Your task to perform on an android device: change alarm snooze length Image 0: 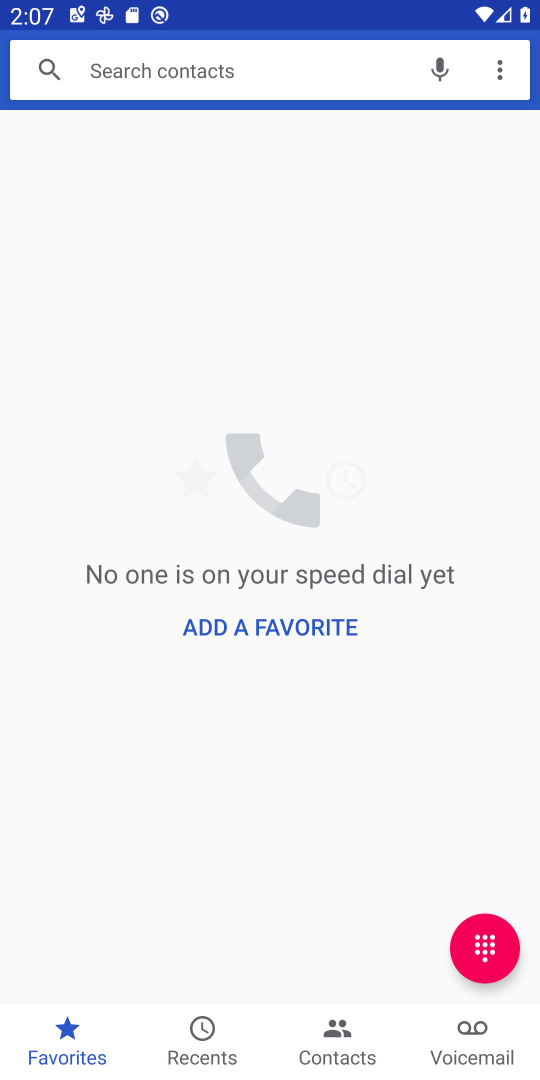
Step 0: press home button
Your task to perform on an android device: change alarm snooze length Image 1: 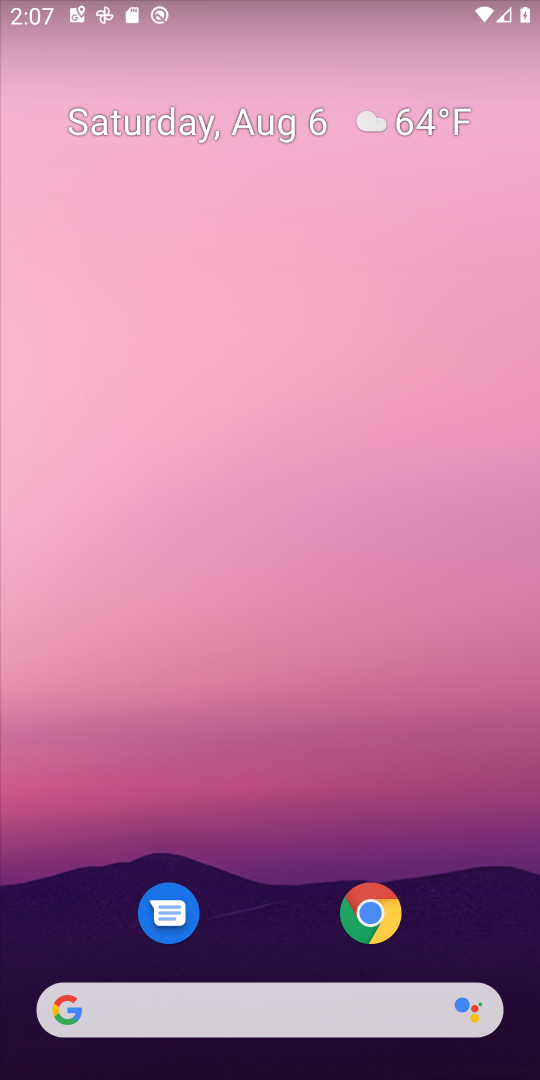
Step 1: drag from (455, 914) to (472, 416)
Your task to perform on an android device: change alarm snooze length Image 2: 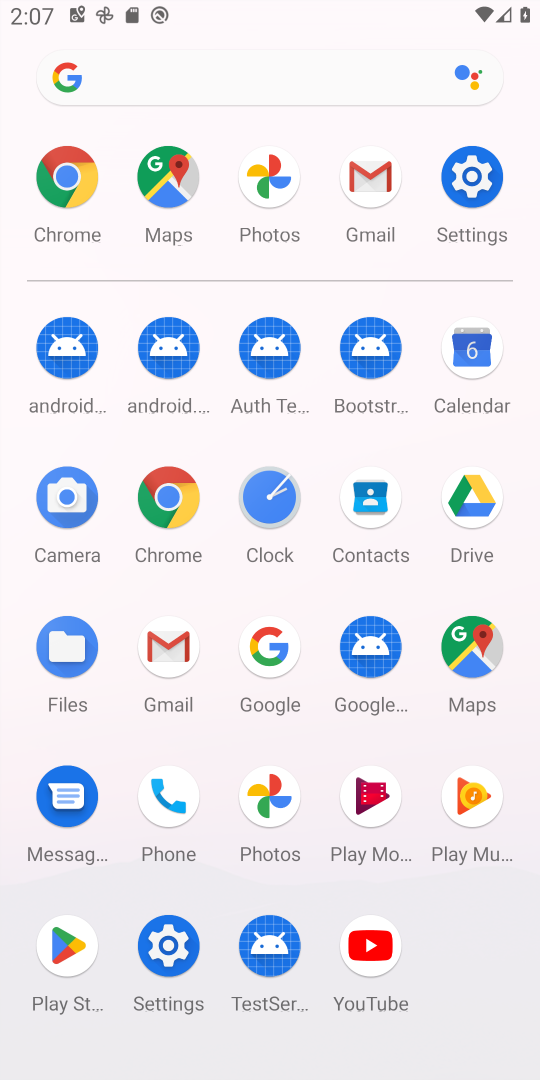
Step 2: click (267, 491)
Your task to perform on an android device: change alarm snooze length Image 3: 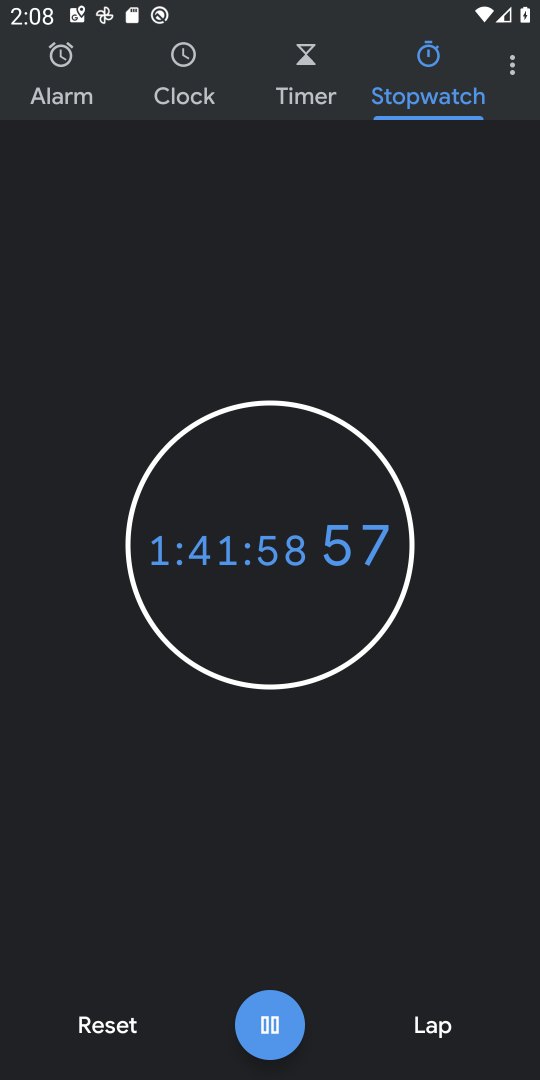
Step 3: click (516, 71)
Your task to perform on an android device: change alarm snooze length Image 4: 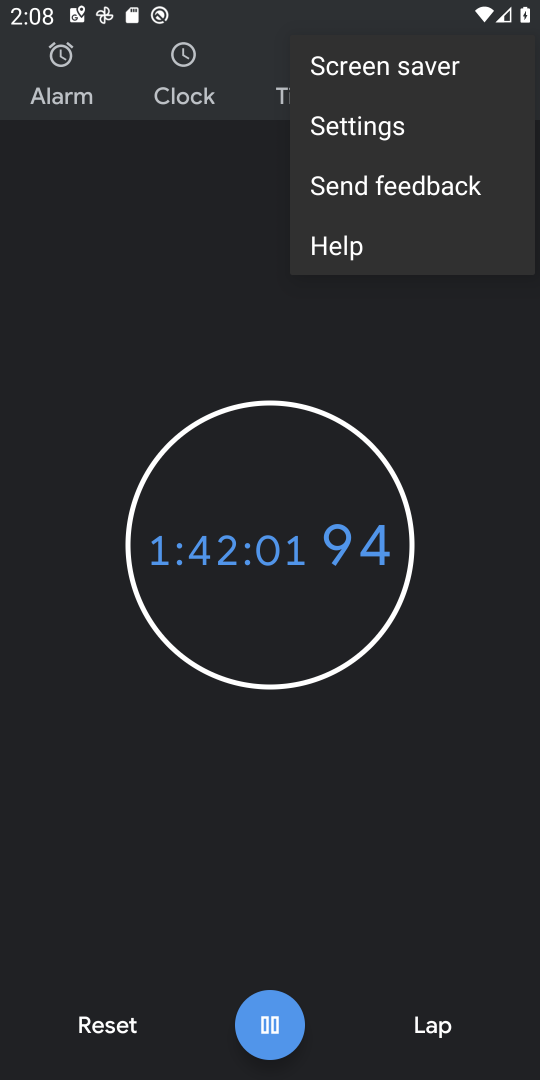
Step 4: click (412, 136)
Your task to perform on an android device: change alarm snooze length Image 5: 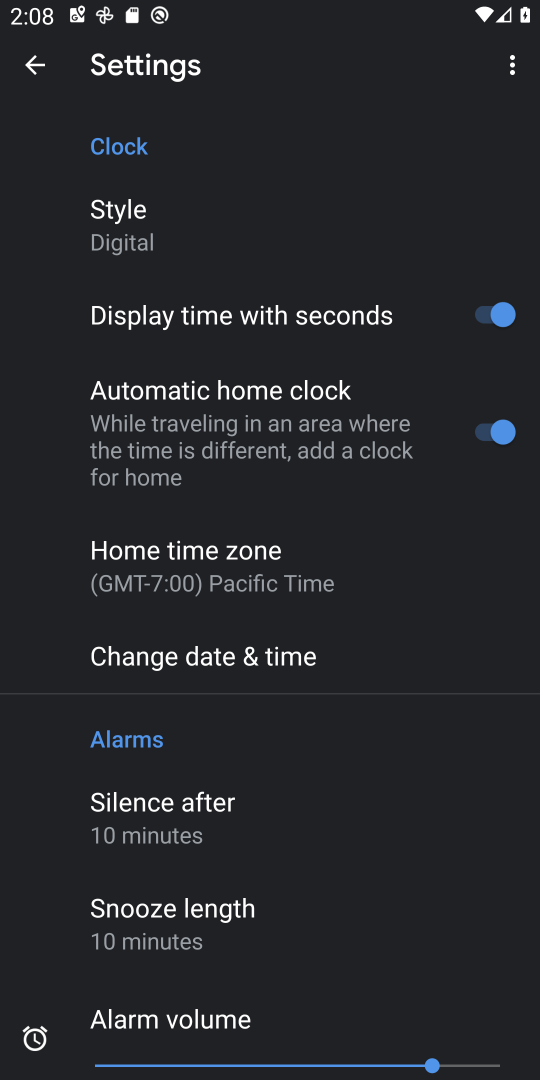
Step 5: drag from (436, 698) to (432, 594)
Your task to perform on an android device: change alarm snooze length Image 6: 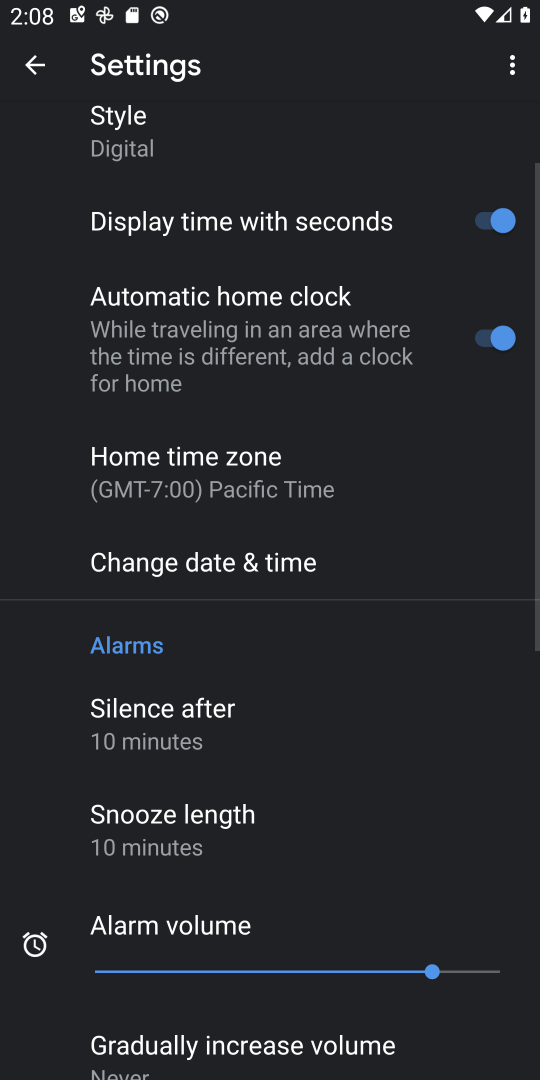
Step 6: drag from (420, 782) to (431, 625)
Your task to perform on an android device: change alarm snooze length Image 7: 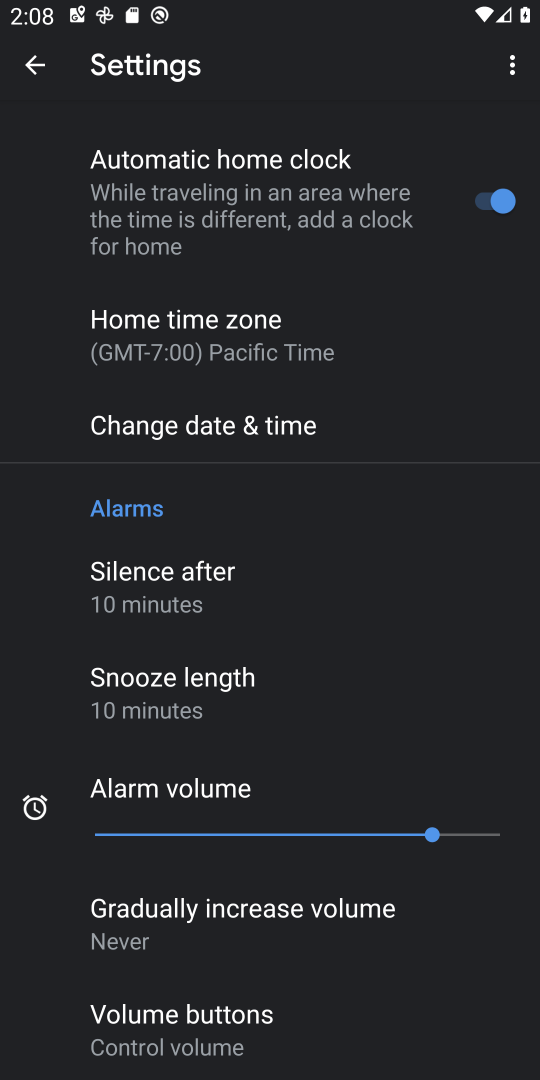
Step 7: drag from (408, 717) to (420, 584)
Your task to perform on an android device: change alarm snooze length Image 8: 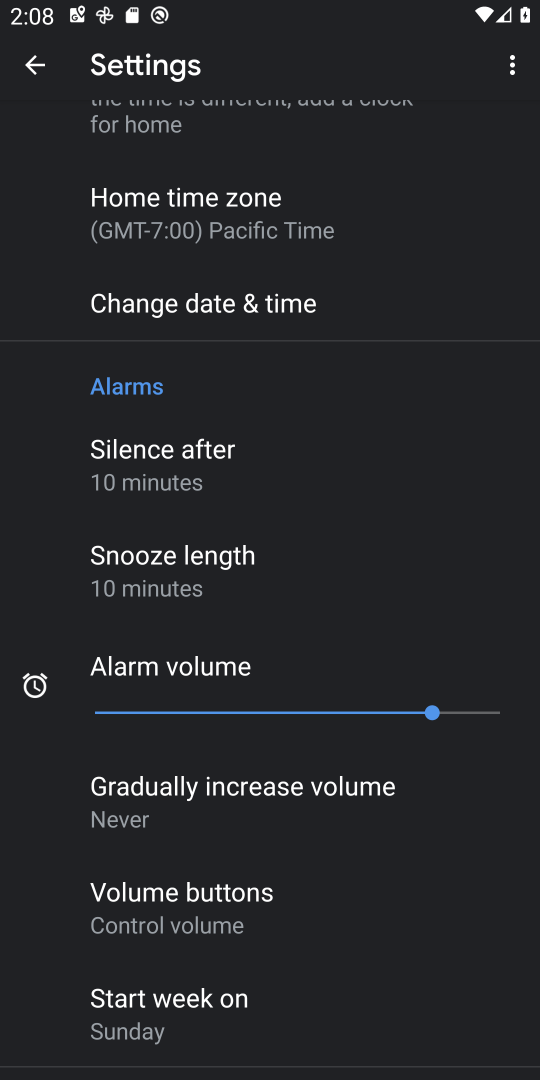
Step 8: drag from (451, 824) to (463, 688)
Your task to perform on an android device: change alarm snooze length Image 9: 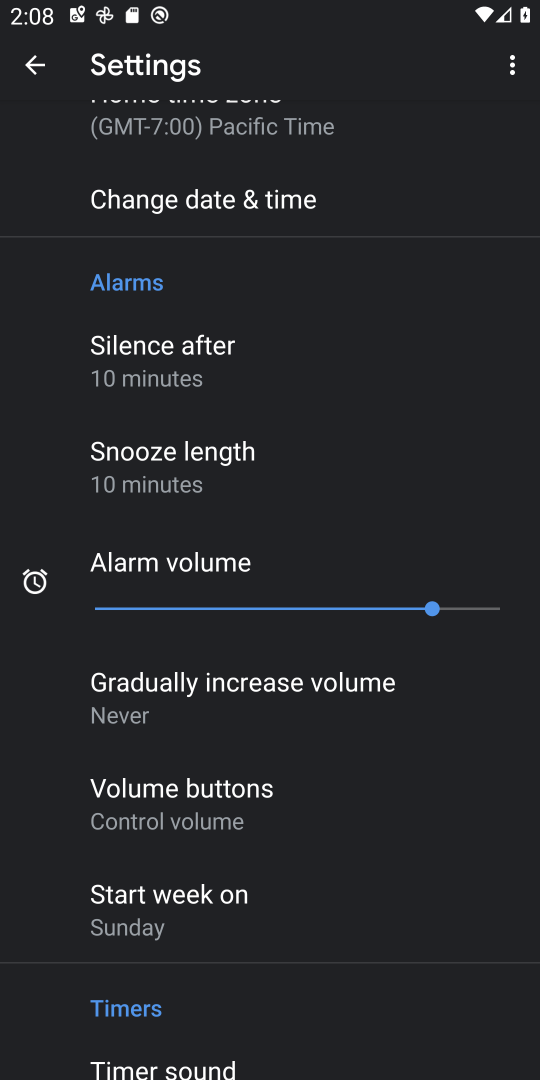
Step 9: click (327, 479)
Your task to perform on an android device: change alarm snooze length Image 10: 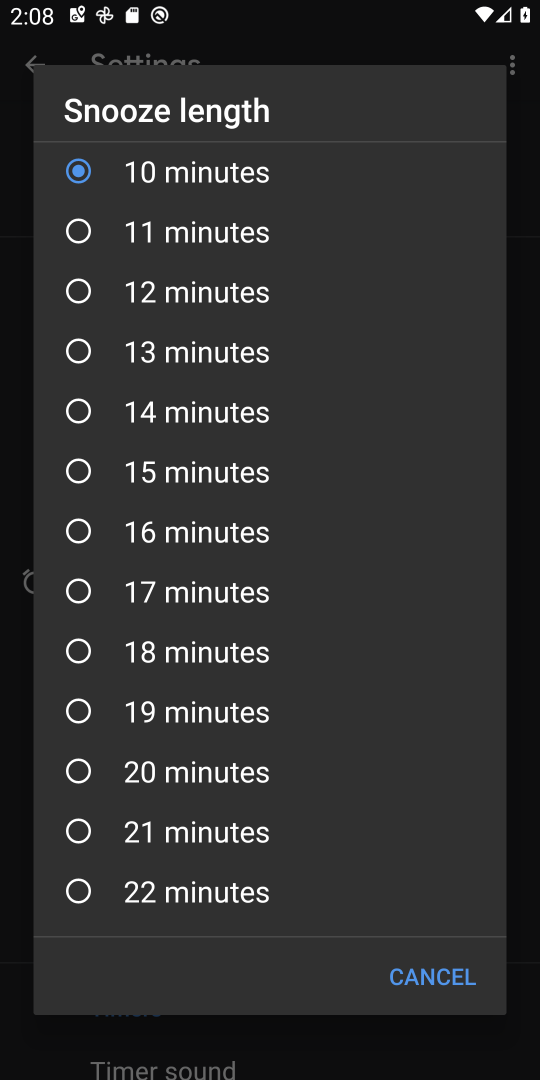
Step 10: click (279, 528)
Your task to perform on an android device: change alarm snooze length Image 11: 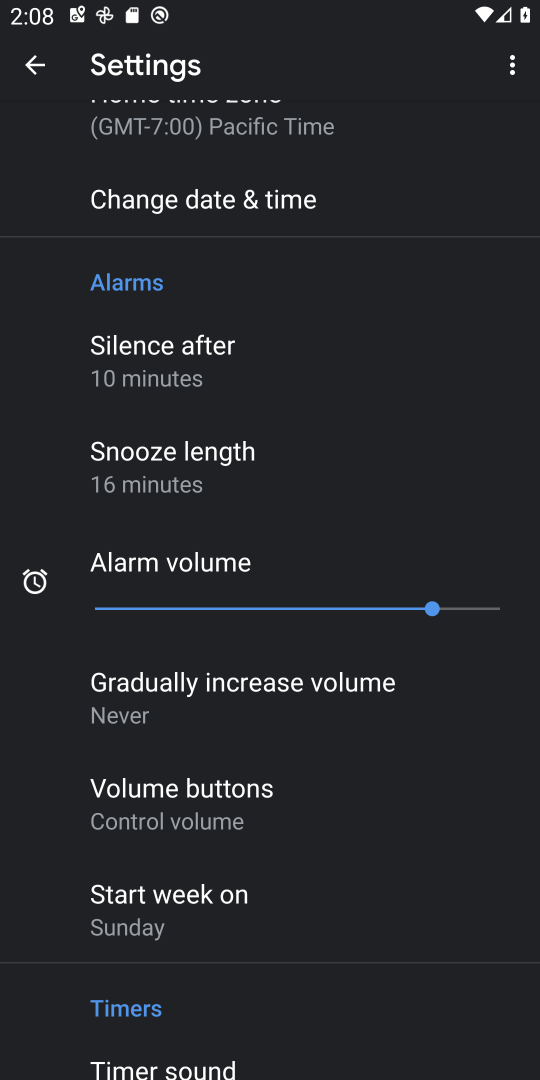
Step 11: task complete